Your task to perform on an android device: Find coffee shops on Maps Image 0: 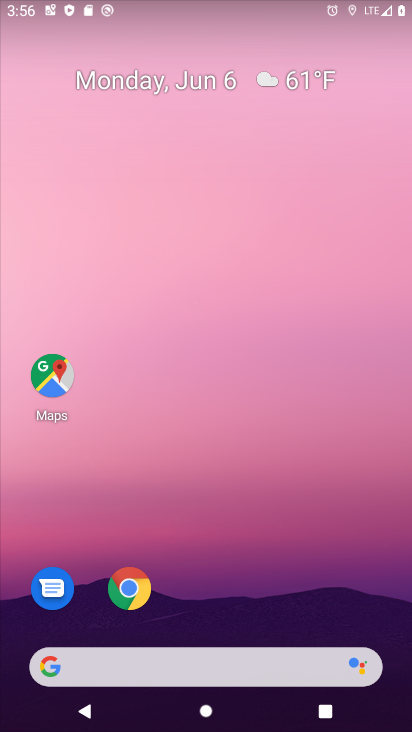
Step 0: click (57, 391)
Your task to perform on an android device: Find coffee shops on Maps Image 1: 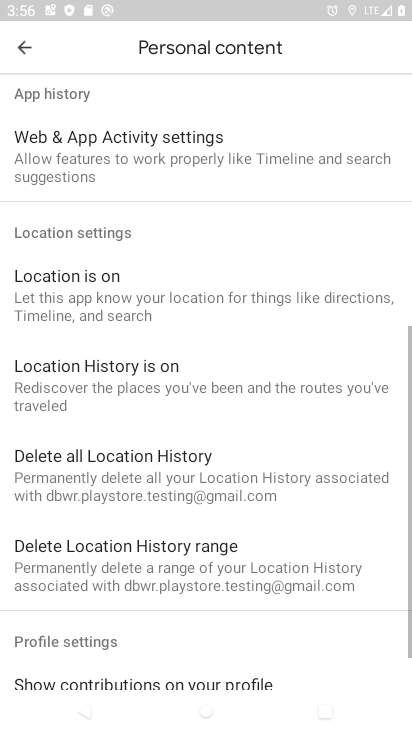
Step 1: click (22, 48)
Your task to perform on an android device: Find coffee shops on Maps Image 2: 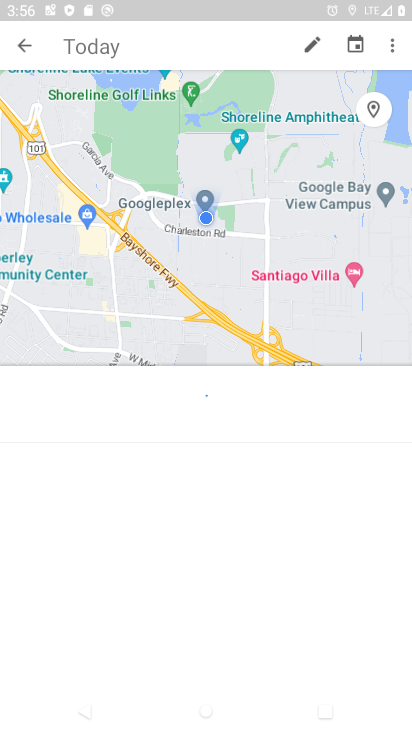
Step 2: click (22, 48)
Your task to perform on an android device: Find coffee shops on Maps Image 3: 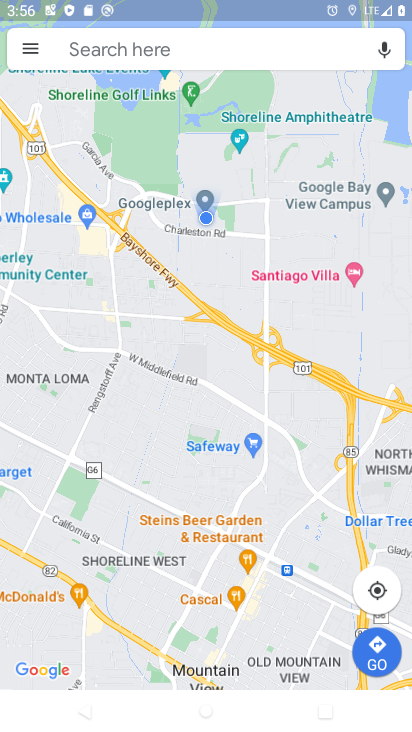
Step 3: click (168, 56)
Your task to perform on an android device: Find coffee shops on Maps Image 4: 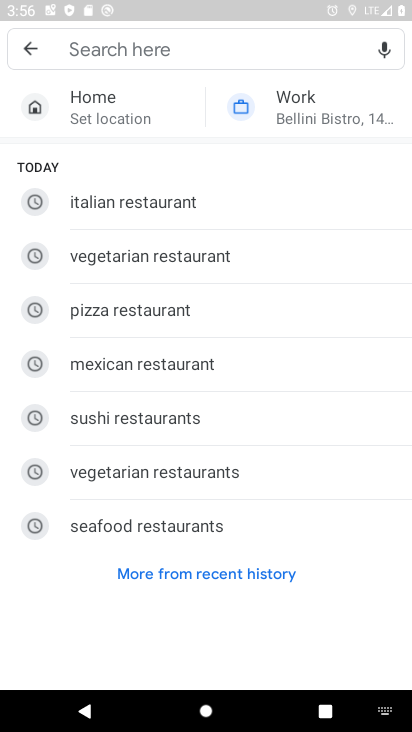
Step 4: type "coffee shops"
Your task to perform on an android device: Find coffee shops on Maps Image 5: 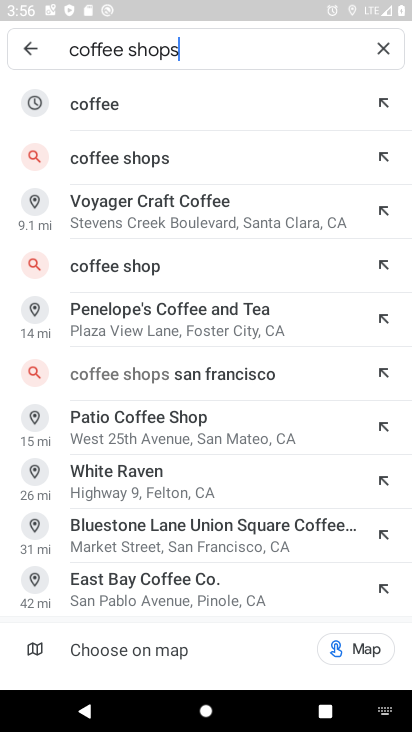
Step 5: click (195, 154)
Your task to perform on an android device: Find coffee shops on Maps Image 6: 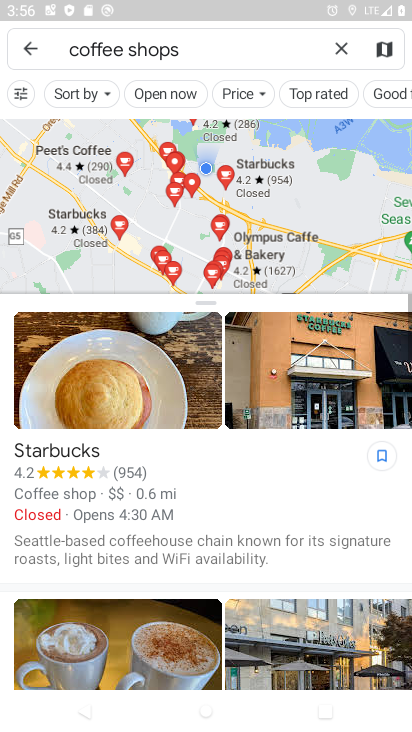
Step 6: task complete